Your task to perform on an android device: Open Yahoo.com Image 0: 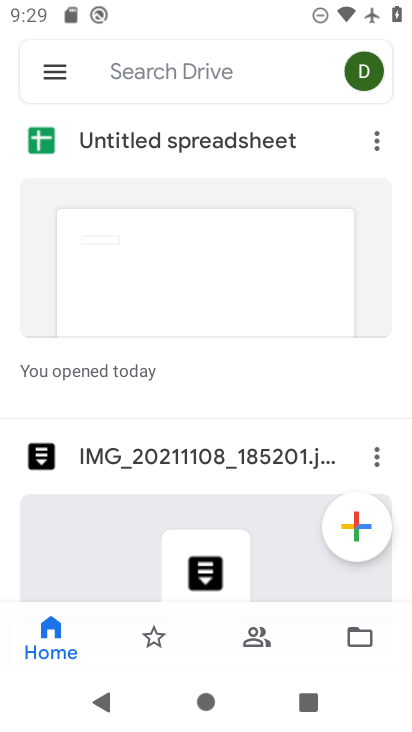
Step 0: press home button
Your task to perform on an android device: Open Yahoo.com Image 1: 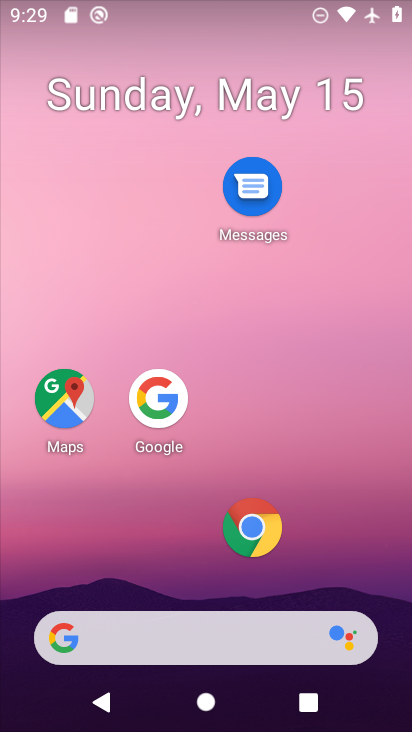
Step 1: click (258, 539)
Your task to perform on an android device: Open Yahoo.com Image 2: 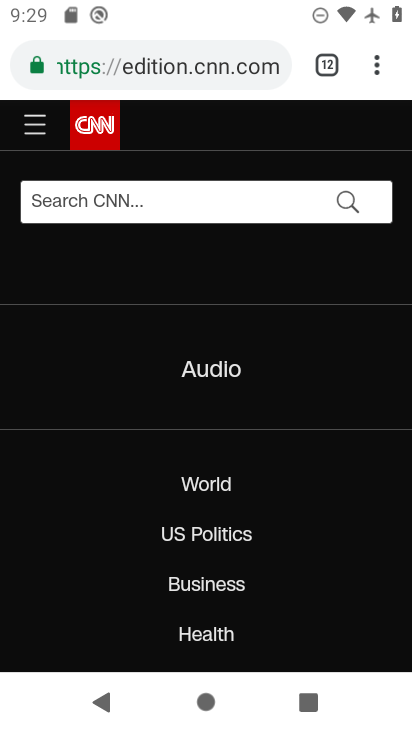
Step 2: drag from (376, 62) to (243, 130)
Your task to perform on an android device: Open Yahoo.com Image 3: 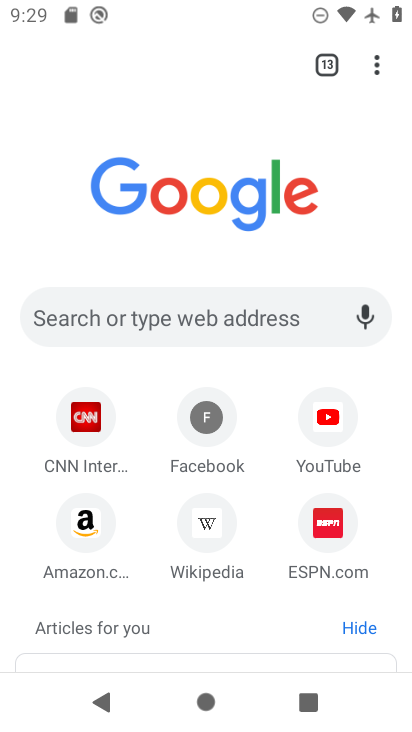
Step 3: drag from (199, 643) to (241, 582)
Your task to perform on an android device: Open Yahoo.com Image 4: 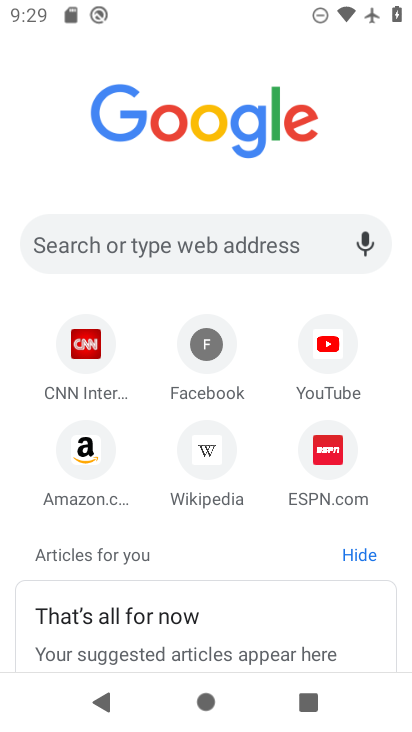
Step 4: click (203, 248)
Your task to perform on an android device: Open Yahoo.com Image 5: 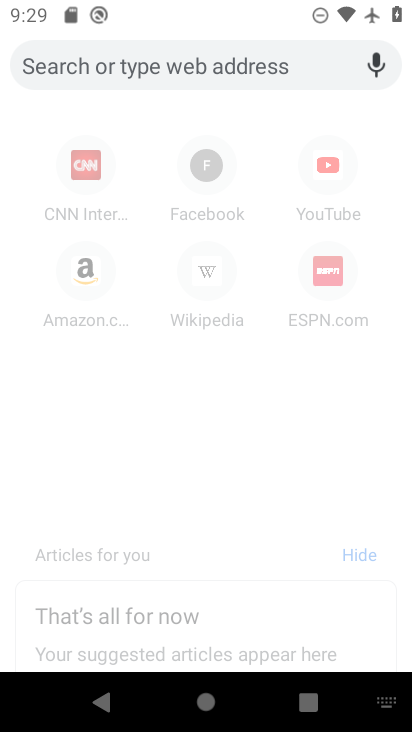
Step 5: type "yahoo.com"
Your task to perform on an android device: Open Yahoo.com Image 6: 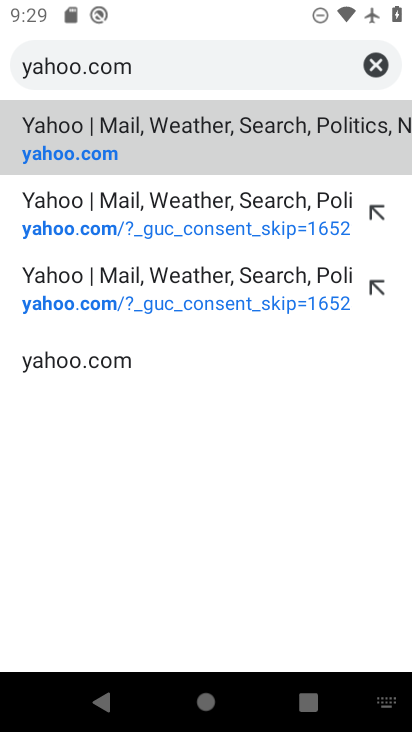
Step 6: click (214, 148)
Your task to perform on an android device: Open Yahoo.com Image 7: 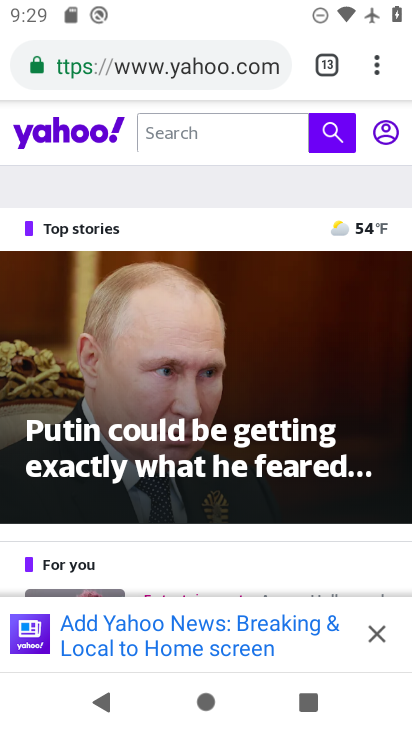
Step 7: task complete